Your task to perform on an android device: allow notifications from all sites in the chrome app Image 0: 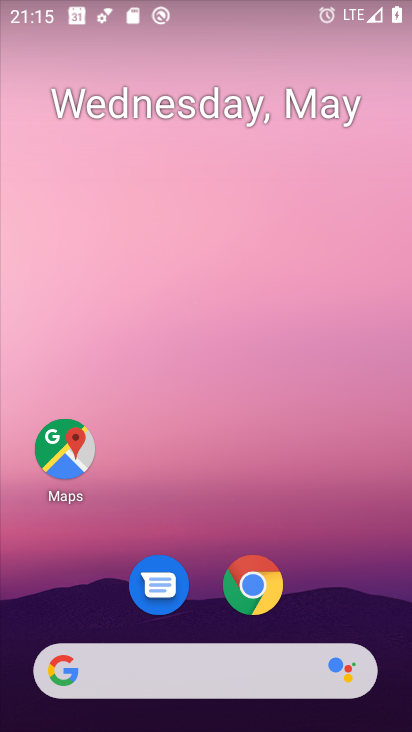
Step 0: click (269, 584)
Your task to perform on an android device: allow notifications from all sites in the chrome app Image 1: 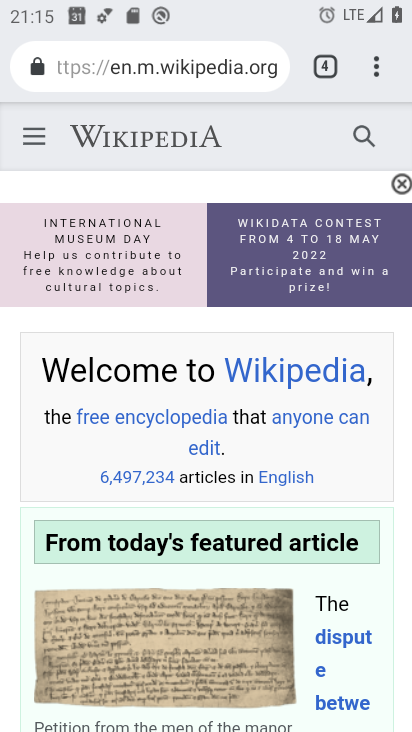
Step 1: click (374, 74)
Your task to perform on an android device: allow notifications from all sites in the chrome app Image 2: 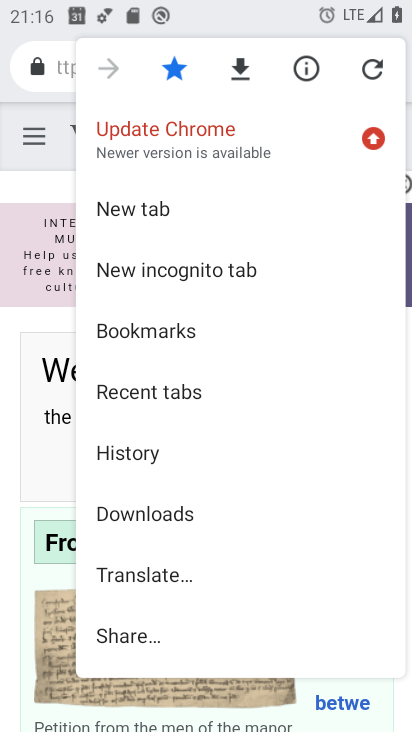
Step 2: drag from (278, 591) to (288, 203)
Your task to perform on an android device: allow notifications from all sites in the chrome app Image 3: 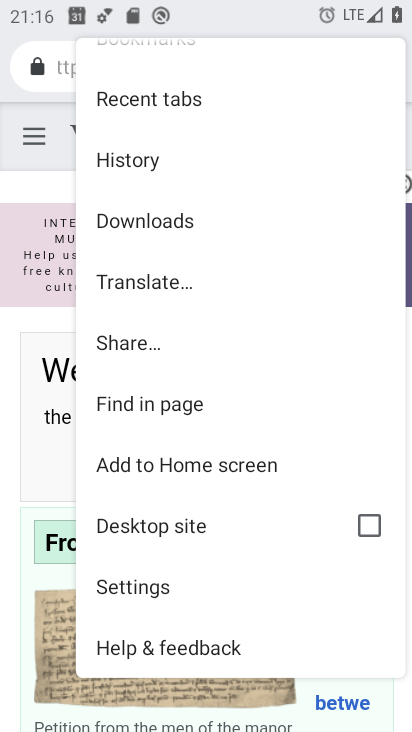
Step 3: click (212, 589)
Your task to perform on an android device: allow notifications from all sites in the chrome app Image 4: 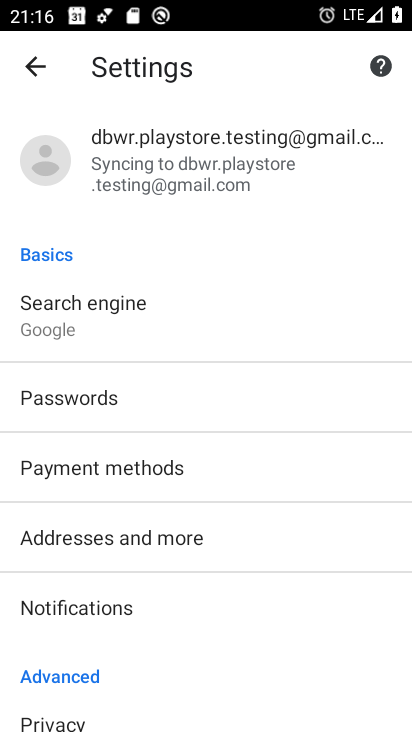
Step 4: click (197, 605)
Your task to perform on an android device: allow notifications from all sites in the chrome app Image 5: 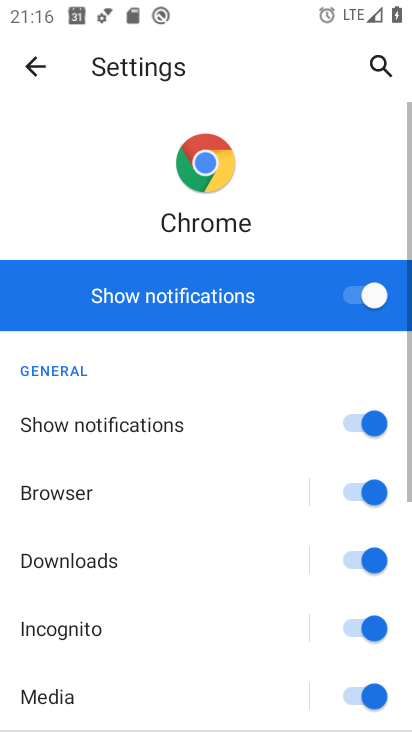
Step 5: task complete